Your task to perform on an android device: Open Amazon Image 0: 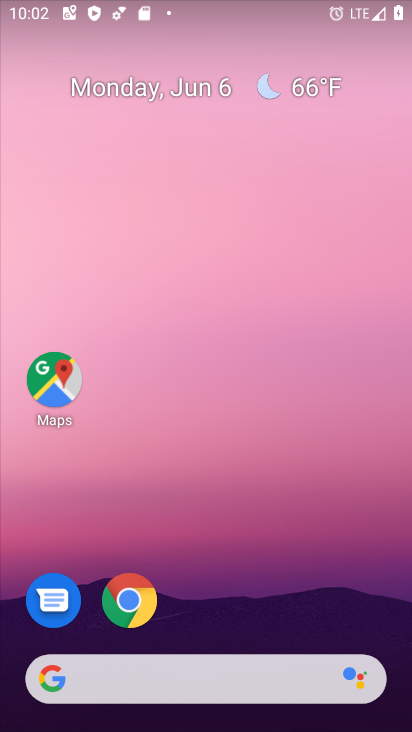
Step 0: click (130, 595)
Your task to perform on an android device: Open Amazon Image 1: 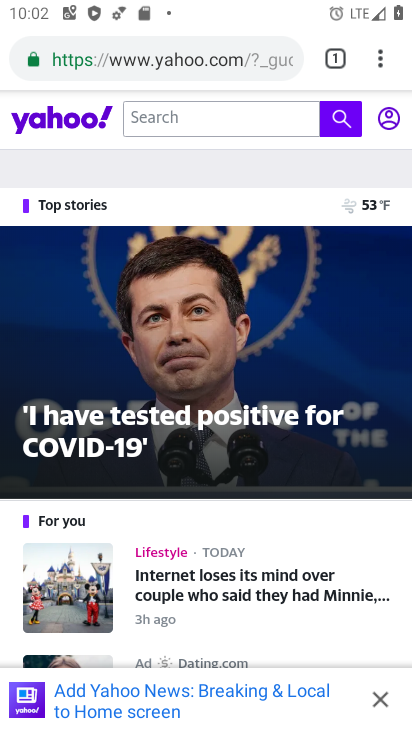
Step 1: click (333, 56)
Your task to perform on an android device: Open Amazon Image 2: 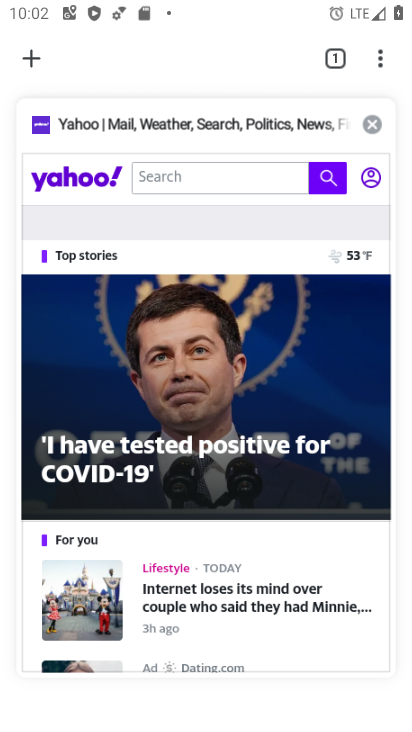
Step 2: click (366, 129)
Your task to perform on an android device: Open Amazon Image 3: 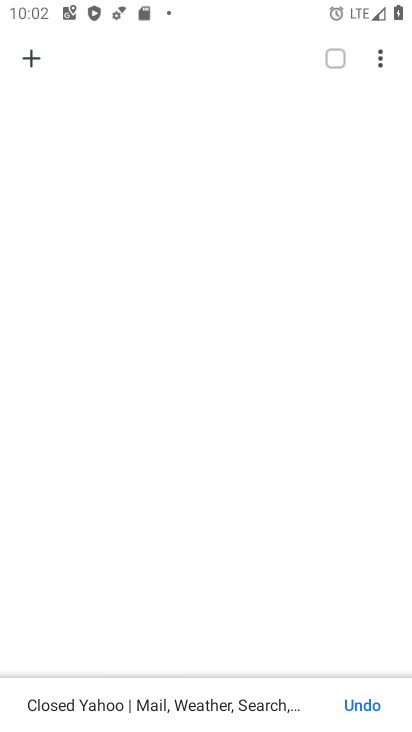
Step 3: click (35, 54)
Your task to perform on an android device: Open Amazon Image 4: 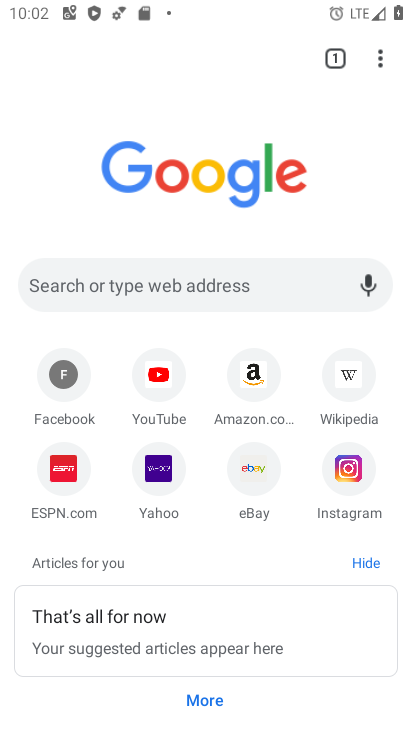
Step 4: click (249, 383)
Your task to perform on an android device: Open Amazon Image 5: 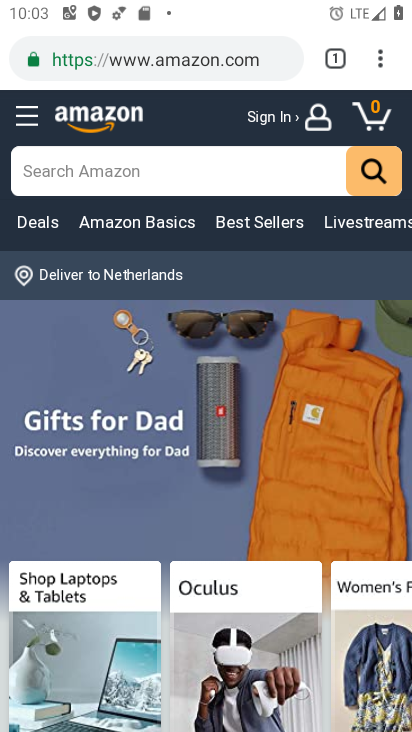
Step 5: task complete